Your task to perform on an android device: What's the weather going to be tomorrow? Image 0: 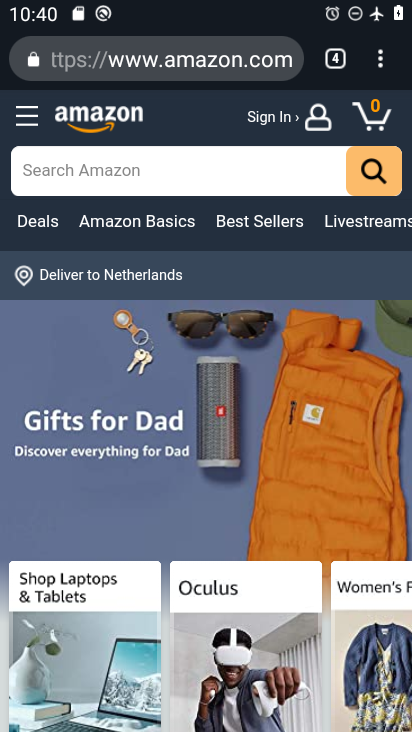
Step 0: press home button
Your task to perform on an android device: What's the weather going to be tomorrow? Image 1: 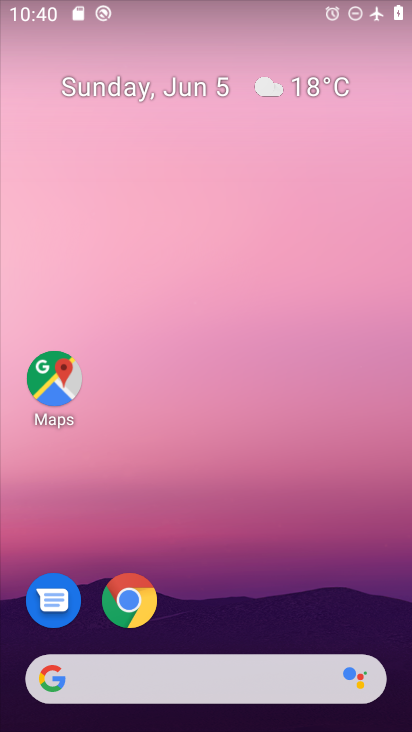
Step 1: click (262, 83)
Your task to perform on an android device: What's the weather going to be tomorrow? Image 2: 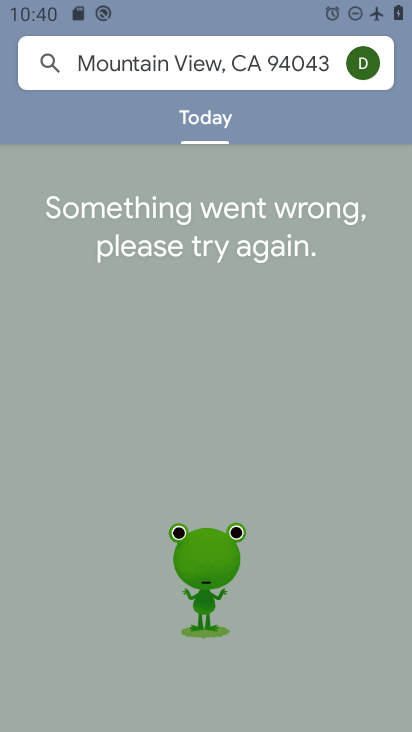
Step 2: task complete